Your task to perform on an android device: turn on notifications settings in the gmail app Image 0: 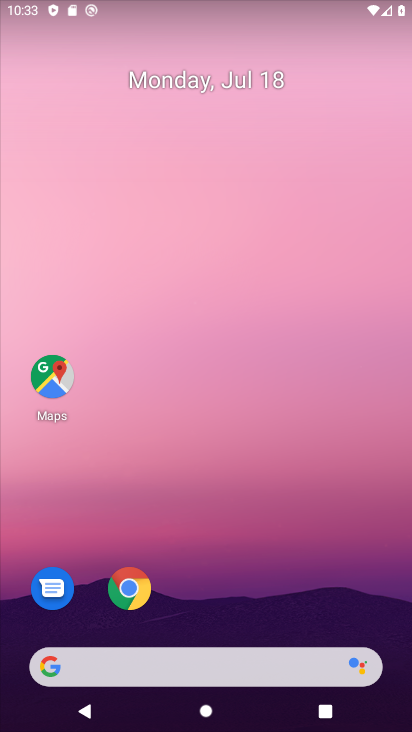
Step 0: drag from (186, 623) to (149, 44)
Your task to perform on an android device: turn on notifications settings in the gmail app Image 1: 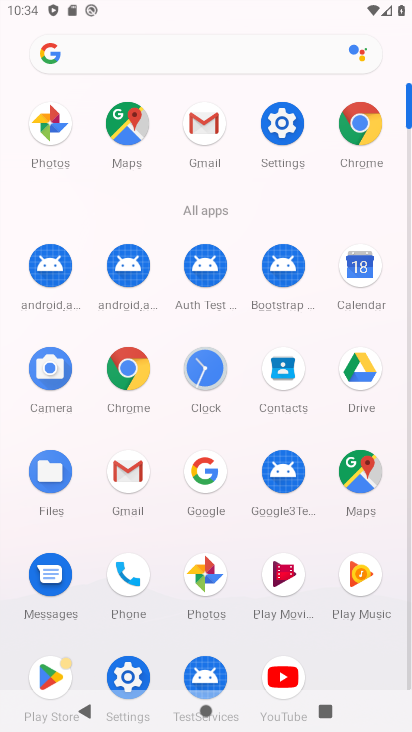
Step 1: click (137, 456)
Your task to perform on an android device: turn on notifications settings in the gmail app Image 2: 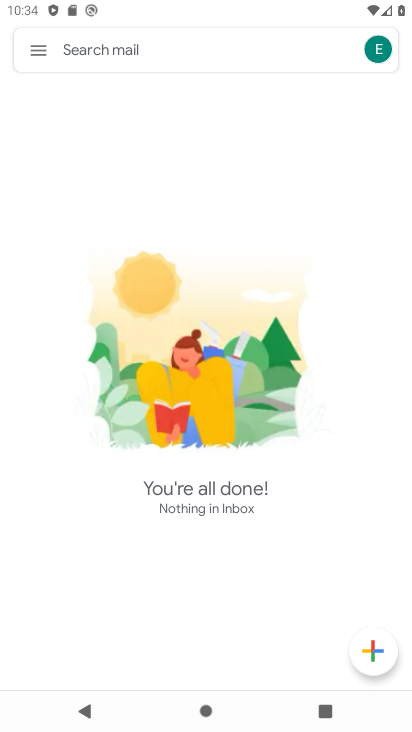
Step 2: click (25, 49)
Your task to perform on an android device: turn on notifications settings in the gmail app Image 3: 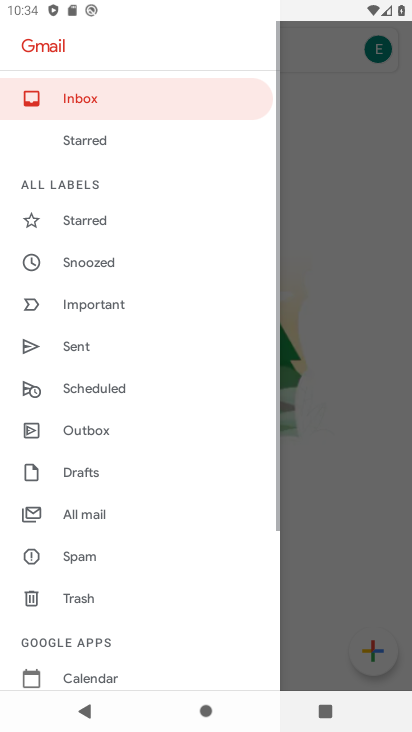
Step 3: drag from (117, 602) to (101, 147)
Your task to perform on an android device: turn on notifications settings in the gmail app Image 4: 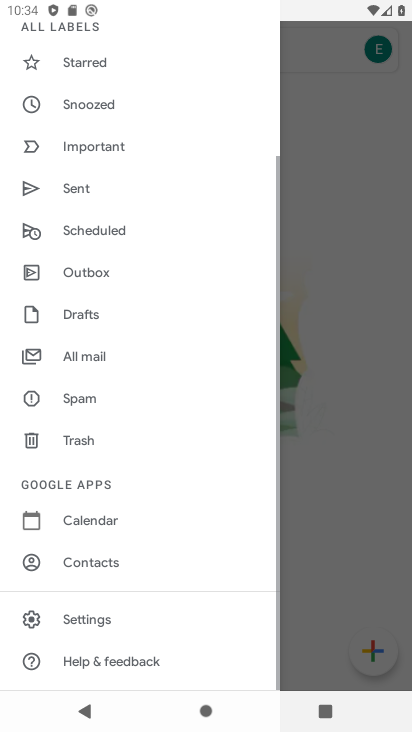
Step 4: click (84, 612)
Your task to perform on an android device: turn on notifications settings in the gmail app Image 5: 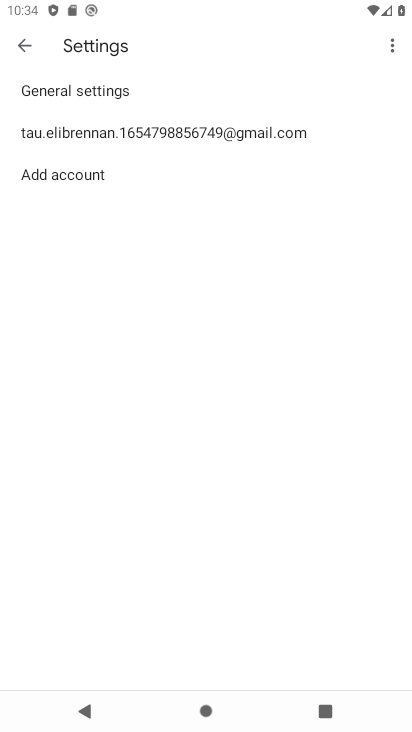
Step 5: click (92, 88)
Your task to perform on an android device: turn on notifications settings in the gmail app Image 6: 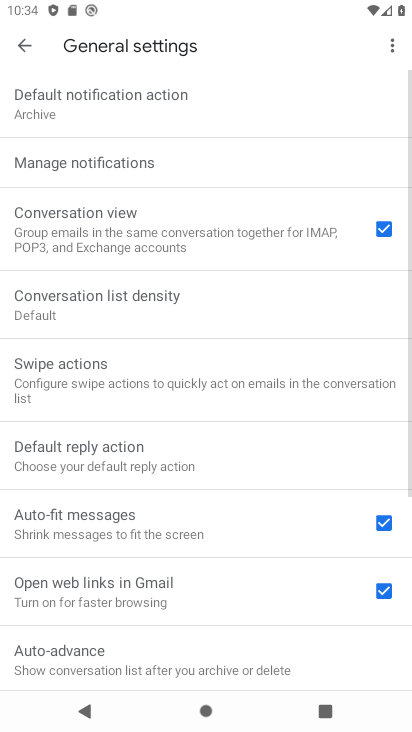
Step 6: click (134, 162)
Your task to perform on an android device: turn on notifications settings in the gmail app Image 7: 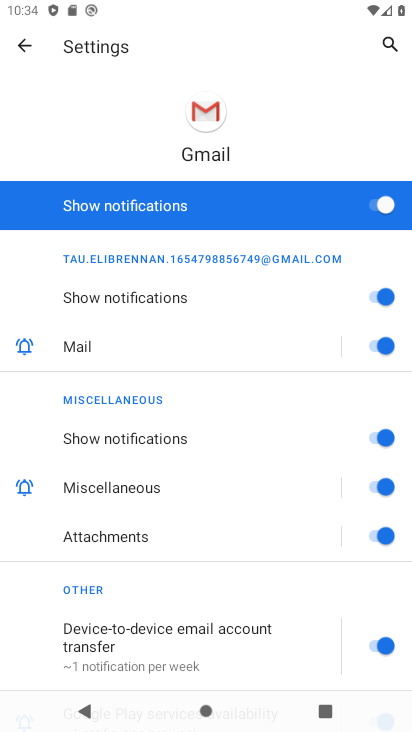
Step 7: task complete